Your task to perform on an android device: Open the phone app and click the voicemail tab. Image 0: 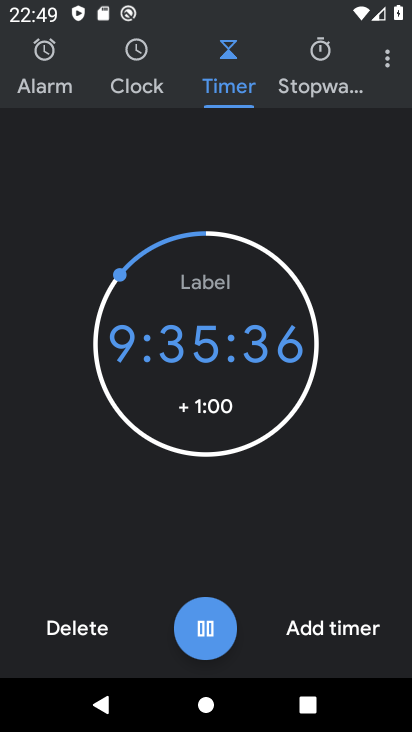
Step 0: press home button
Your task to perform on an android device: Open the phone app and click the voicemail tab. Image 1: 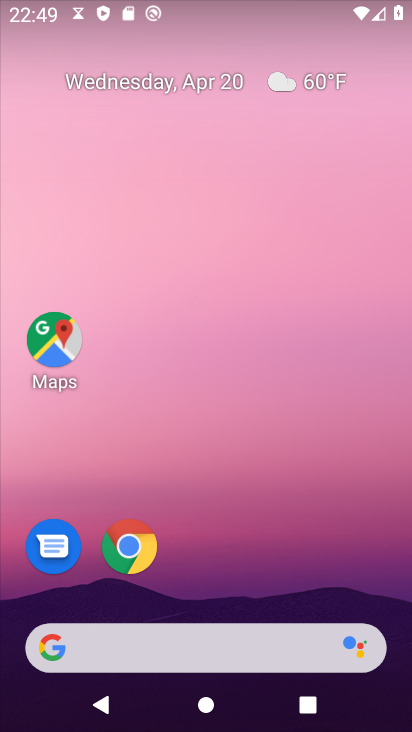
Step 1: drag from (260, 526) to (211, 42)
Your task to perform on an android device: Open the phone app and click the voicemail tab. Image 2: 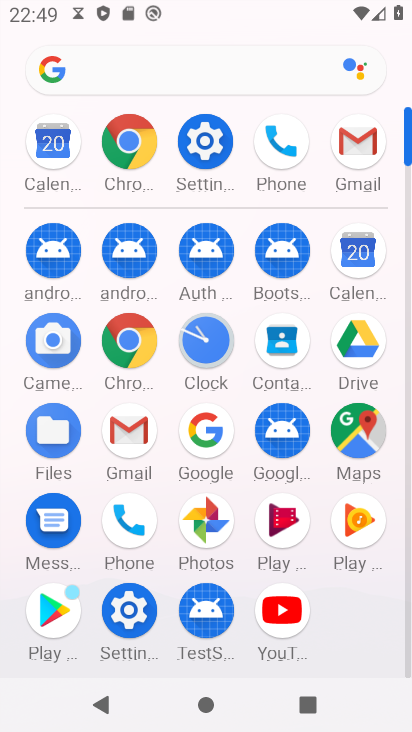
Step 2: click (135, 527)
Your task to perform on an android device: Open the phone app and click the voicemail tab. Image 3: 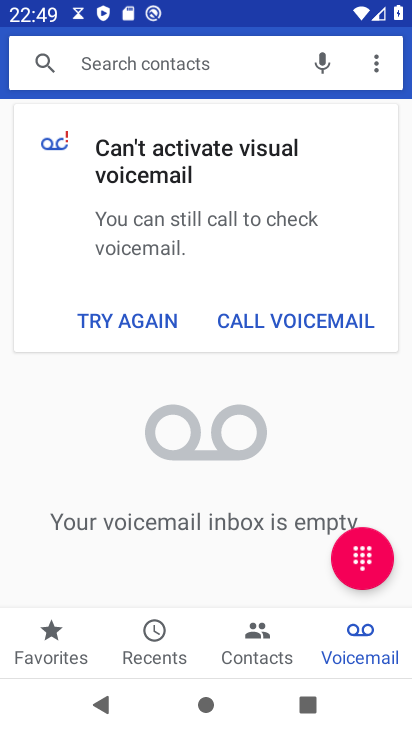
Step 3: click (345, 639)
Your task to perform on an android device: Open the phone app and click the voicemail tab. Image 4: 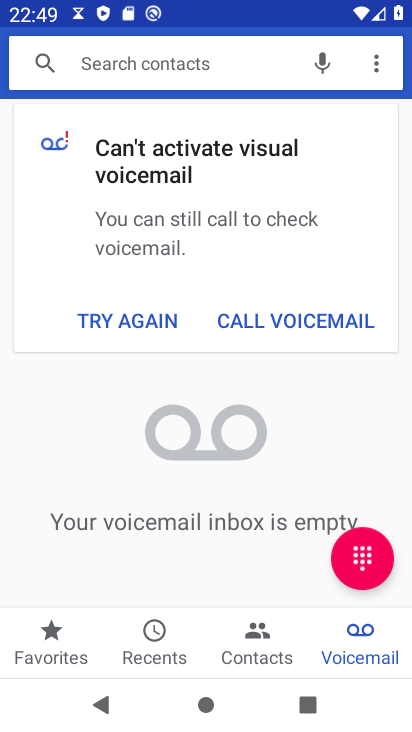
Step 4: task complete